Your task to perform on an android device: Open the calendar and show me this week's events? Image 0: 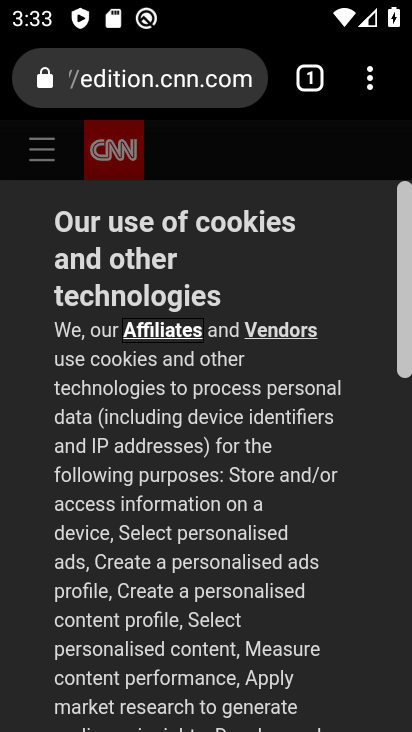
Step 0: press home button
Your task to perform on an android device: Open the calendar and show me this week's events? Image 1: 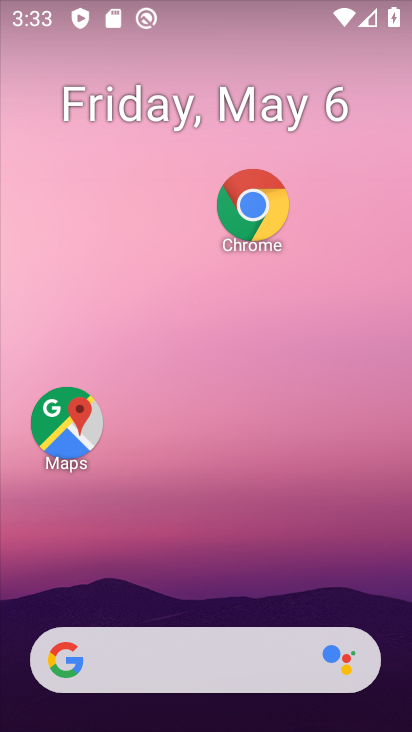
Step 1: drag from (189, 612) to (133, 5)
Your task to perform on an android device: Open the calendar and show me this week's events? Image 2: 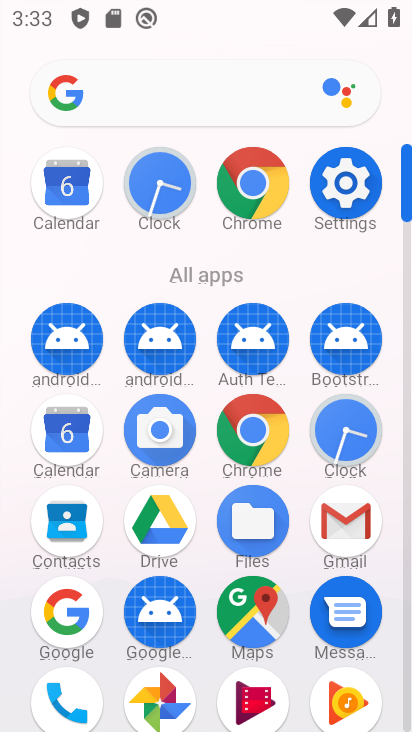
Step 2: click (44, 452)
Your task to perform on an android device: Open the calendar and show me this week's events? Image 3: 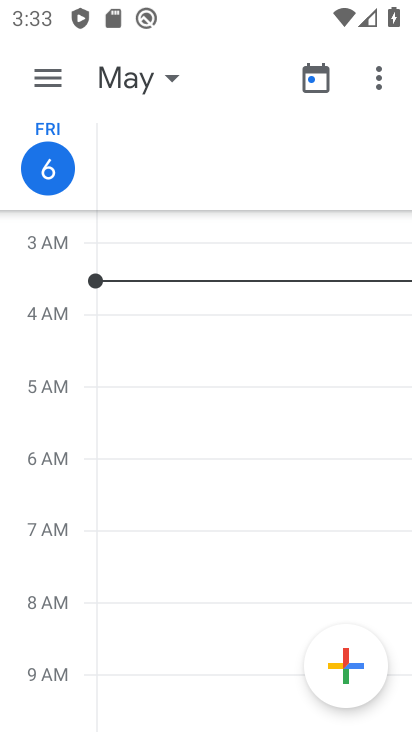
Step 3: click (42, 76)
Your task to perform on an android device: Open the calendar and show me this week's events? Image 4: 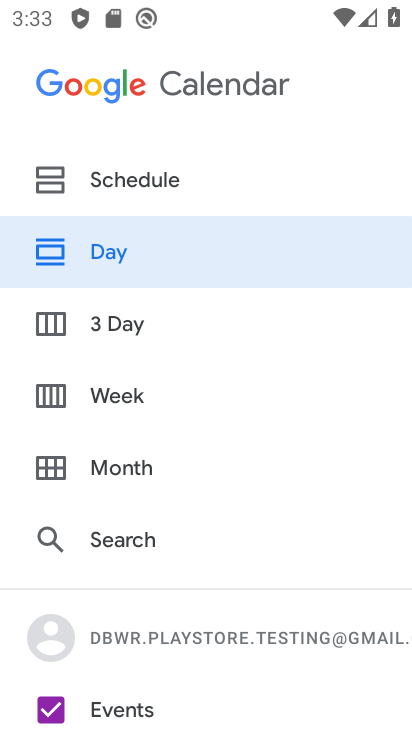
Step 4: click (117, 395)
Your task to perform on an android device: Open the calendar and show me this week's events? Image 5: 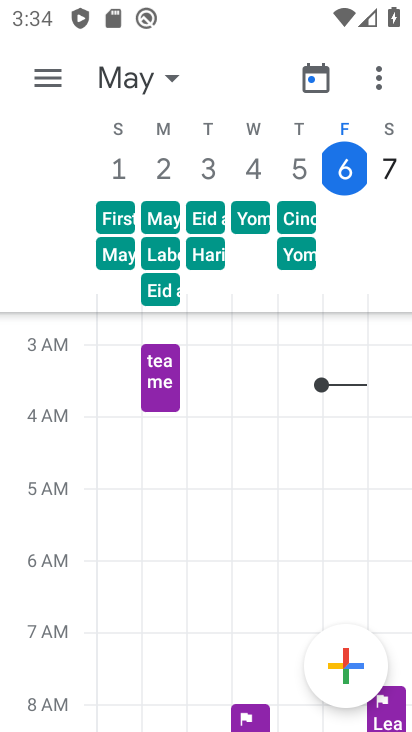
Step 5: task complete